Your task to perform on an android device: turn on improve location accuracy Image 0: 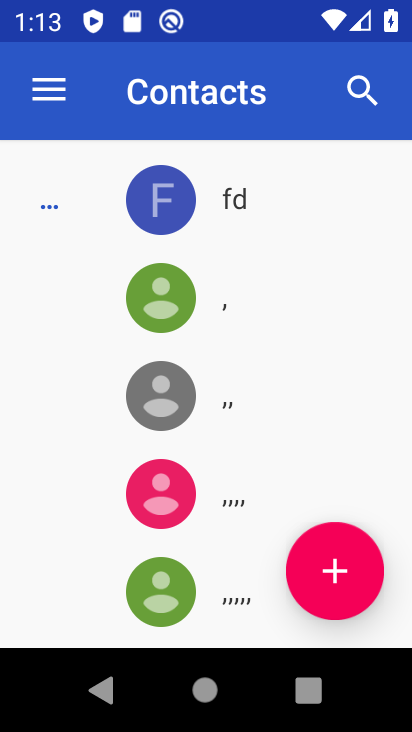
Step 0: press home button
Your task to perform on an android device: turn on improve location accuracy Image 1: 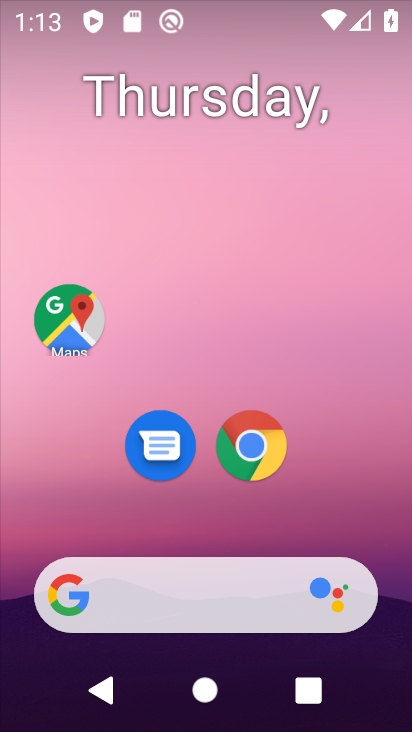
Step 1: drag from (15, 601) to (261, 204)
Your task to perform on an android device: turn on improve location accuracy Image 2: 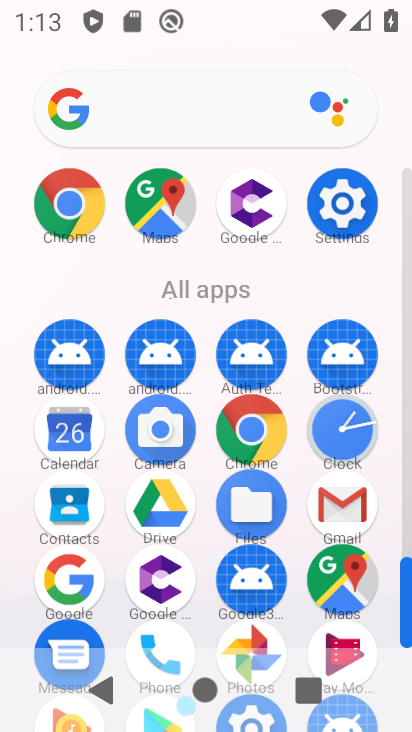
Step 2: click (353, 194)
Your task to perform on an android device: turn on improve location accuracy Image 3: 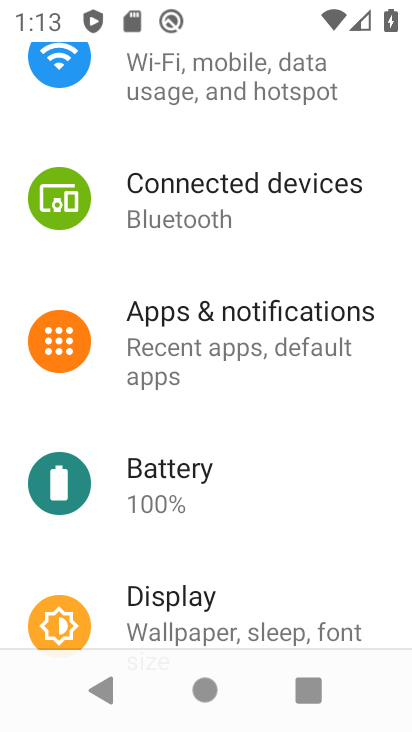
Step 3: drag from (31, 482) to (221, 177)
Your task to perform on an android device: turn on improve location accuracy Image 4: 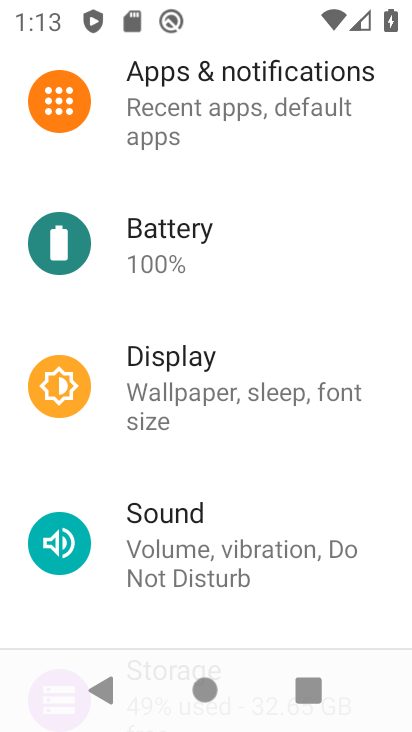
Step 4: drag from (35, 387) to (139, 196)
Your task to perform on an android device: turn on improve location accuracy Image 5: 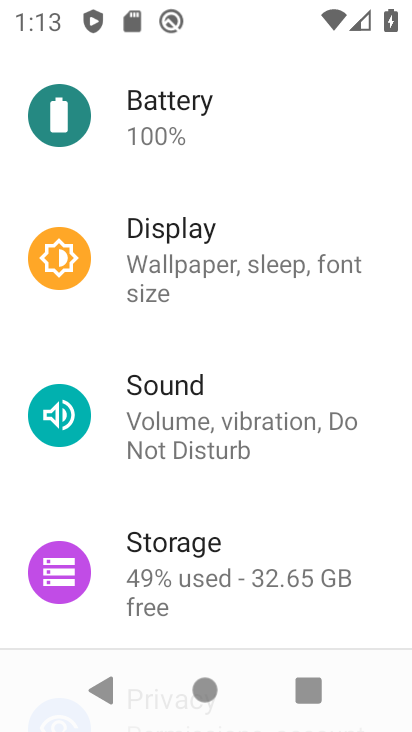
Step 5: drag from (0, 492) to (259, 168)
Your task to perform on an android device: turn on improve location accuracy Image 6: 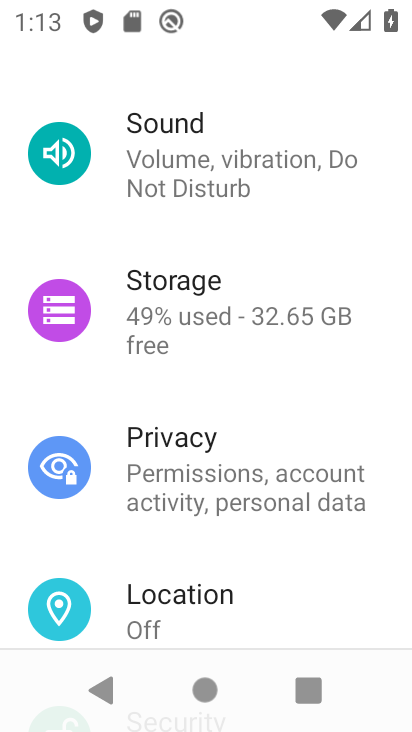
Step 6: click (99, 611)
Your task to perform on an android device: turn on improve location accuracy Image 7: 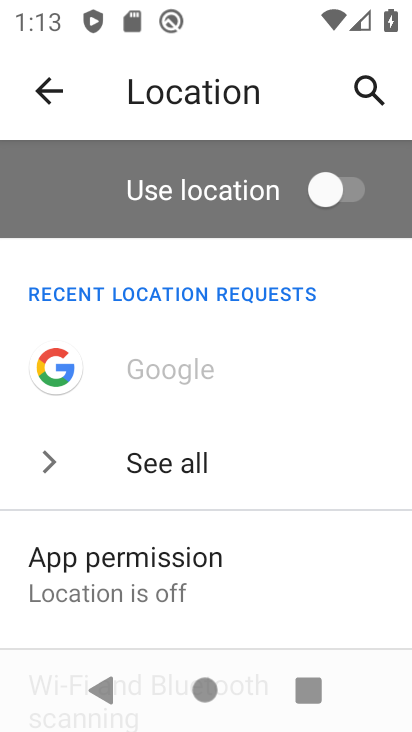
Step 7: drag from (38, 444) to (228, 200)
Your task to perform on an android device: turn on improve location accuracy Image 8: 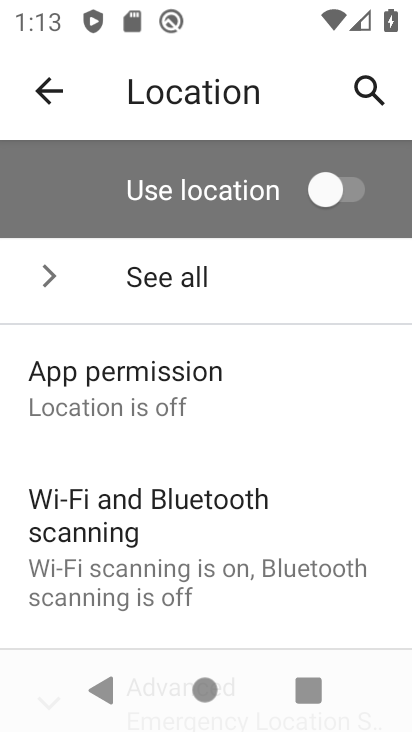
Step 8: drag from (5, 537) to (184, 243)
Your task to perform on an android device: turn on improve location accuracy Image 9: 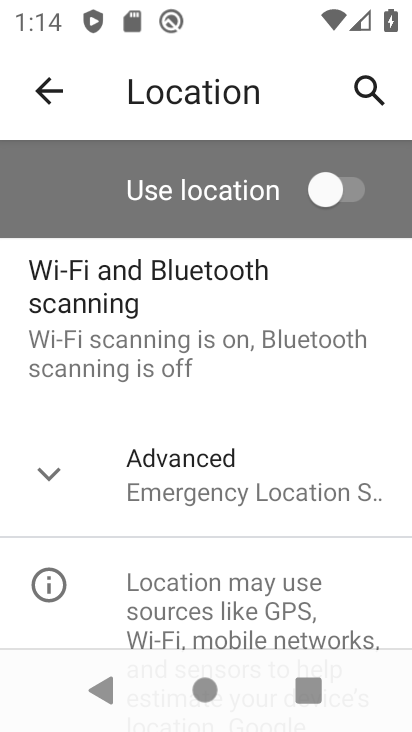
Step 9: click (138, 467)
Your task to perform on an android device: turn on improve location accuracy Image 10: 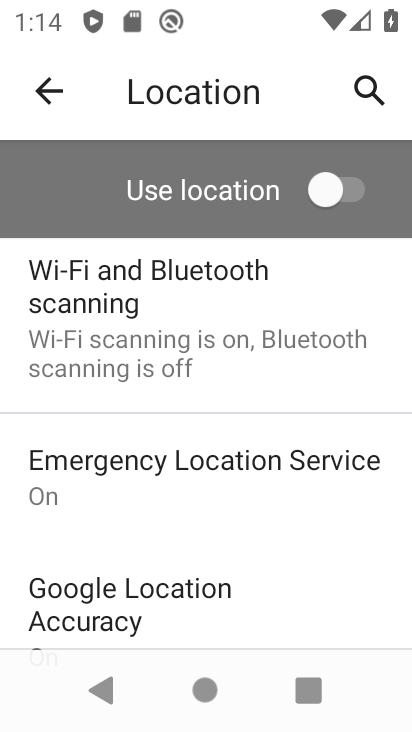
Step 10: drag from (118, 590) to (230, 202)
Your task to perform on an android device: turn on improve location accuracy Image 11: 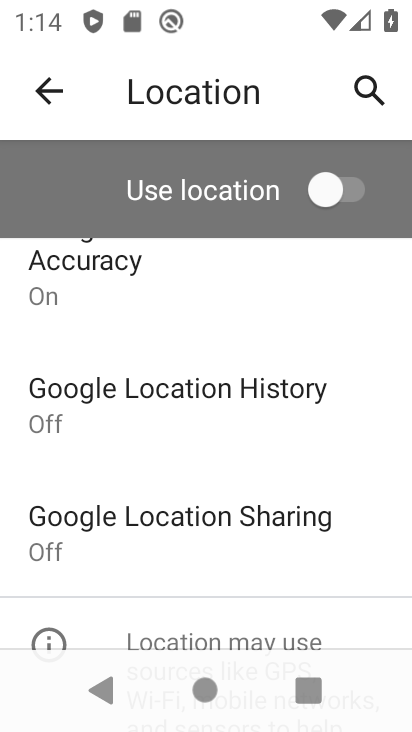
Step 11: click (100, 280)
Your task to perform on an android device: turn on improve location accuracy Image 12: 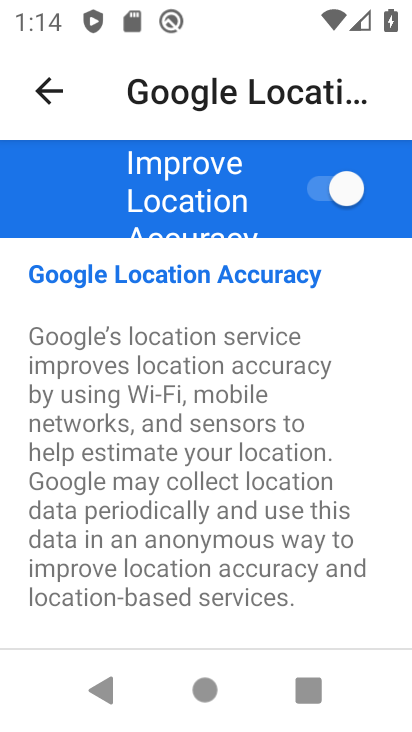
Step 12: task complete